Your task to perform on an android device: Search for the new nike air max 270 on Nike.com Image 0: 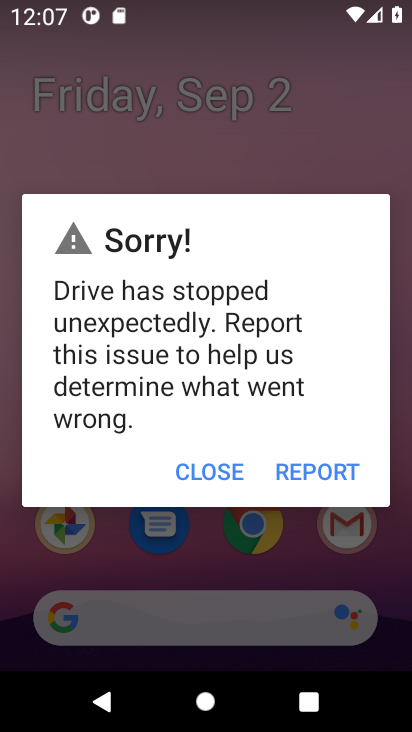
Step 0: press home button
Your task to perform on an android device: Search for the new nike air max 270 on Nike.com Image 1: 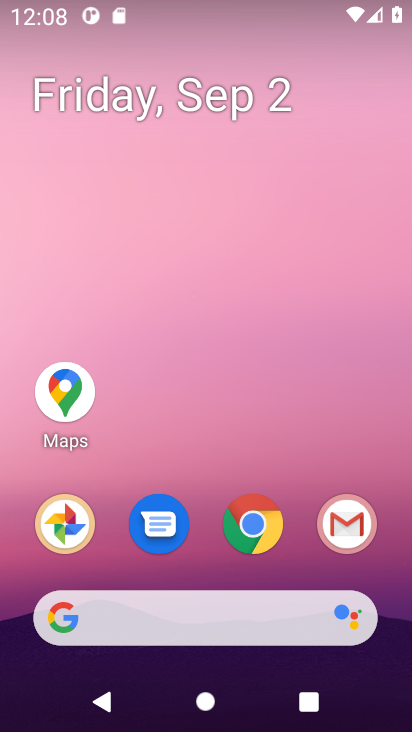
Step 1: click (277, 612)
Your task to perform on an android device: Search for the new nike air max 270 on Nike.com Image 2: 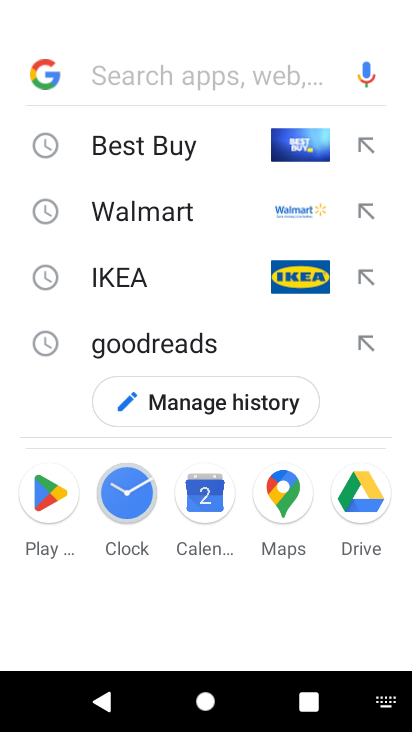
Step 2: press enter
Your task to perform on an android device: Search for the new nike air max 270 on Nike.com Image 3: 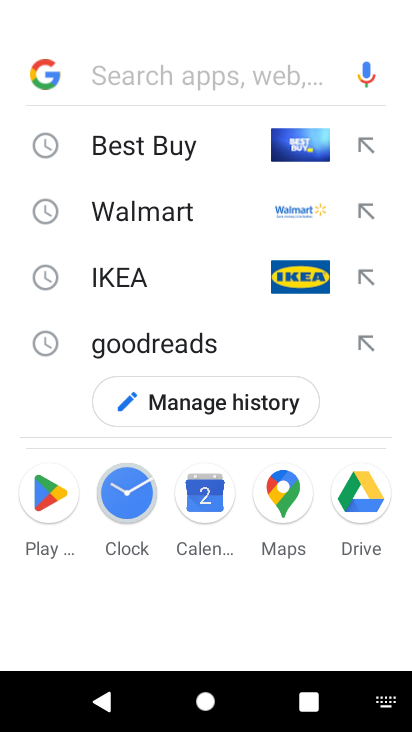
Step 3: type "nike.com"
Your task to perform on an android device: Search for the new nike air max 270 on Nike.com Image 4: 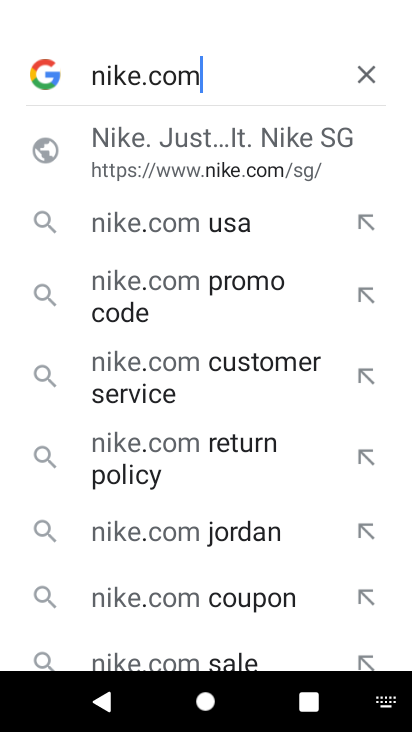
Step 4: click (276, 149)
Your task to perform on an android device: Search for the new nike air max 270 on Nike.com Image 5: 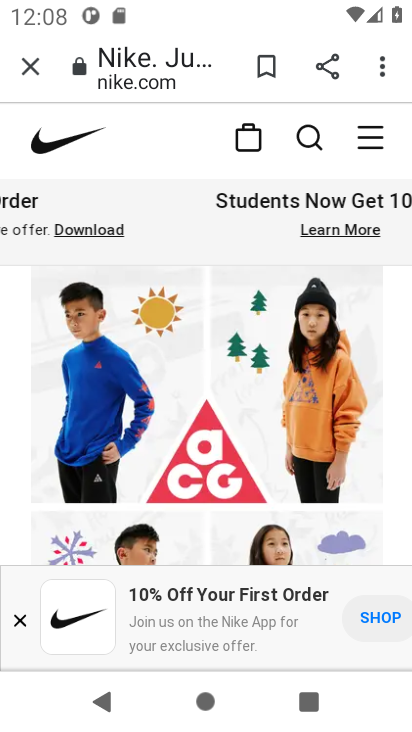
Step 5: click (310, 133)
Your task to perform on an android device: Search for the new nike air max 270 on Nike.com Image 6: 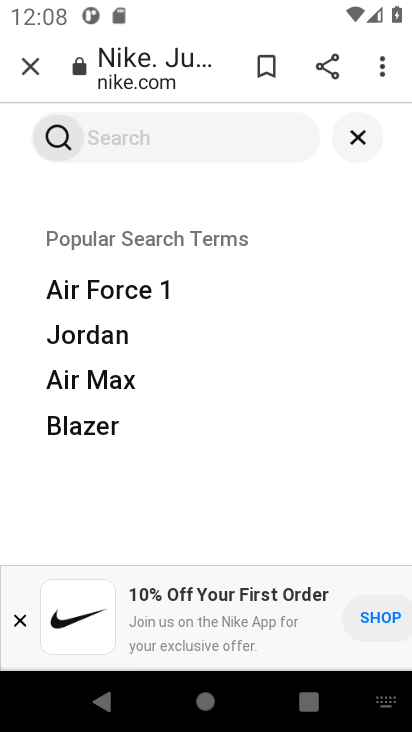
Step 6: press enter
Your task to perform on an android device: Search for the new nike air max 270 on Nike.com Image 7: 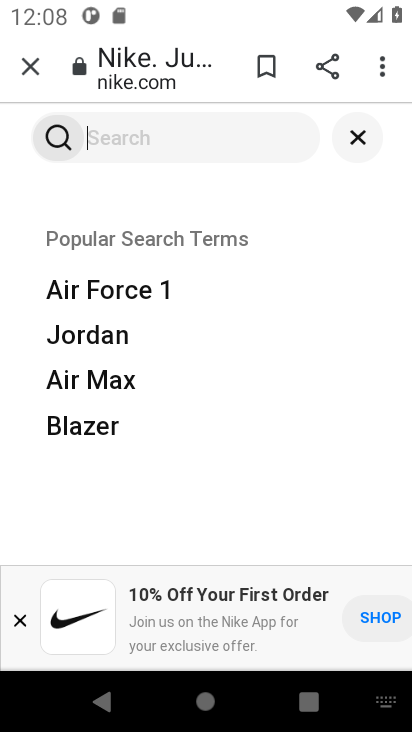
Step 7: type " nike air max 270"
Your task to perform on an android device: Search for the new nike air max 270 on Nike.com Image 8: 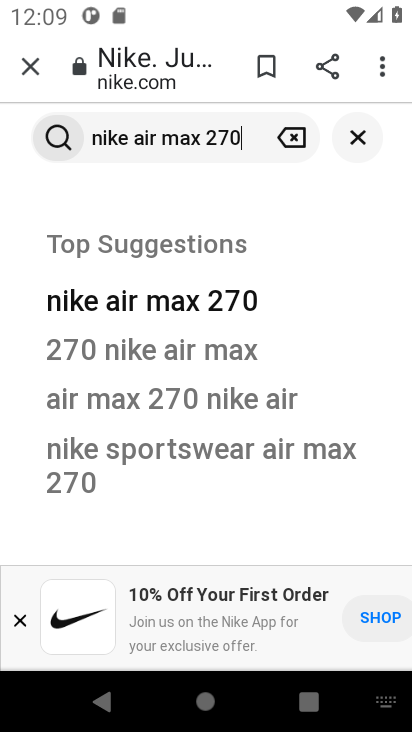
Step 8: click (244, 294)
Your task to perform on an android device: Search for the new nike air max 270 on Nike.com Image 9: 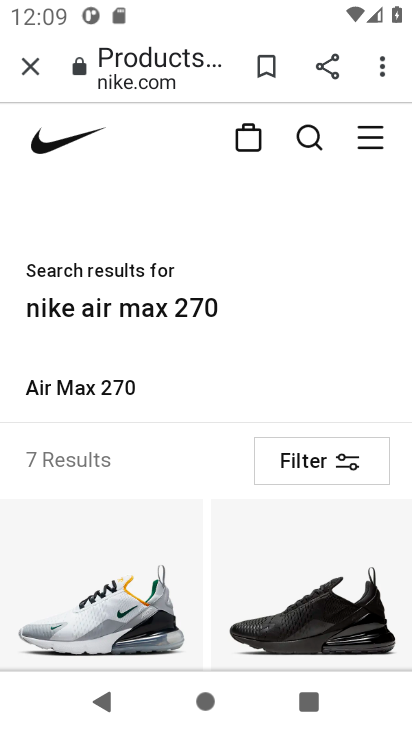
Step 9: task complete